Your task to perform on an android device: Open notification settings Image 0: 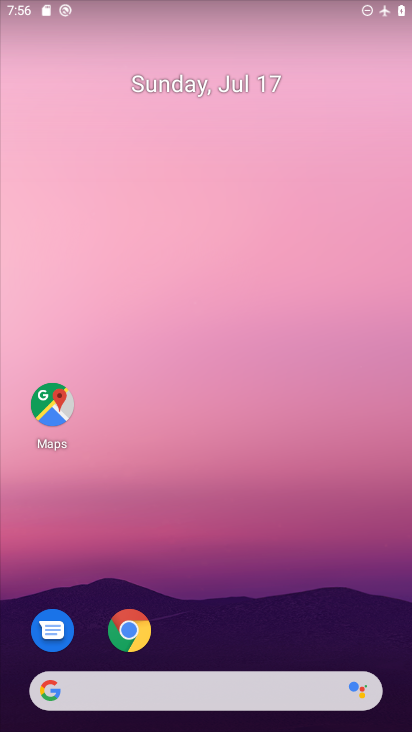
Step 0: drag from (381, 656) to (290, 69)
Your task to perform on an android device: Open notification settings Image 1: 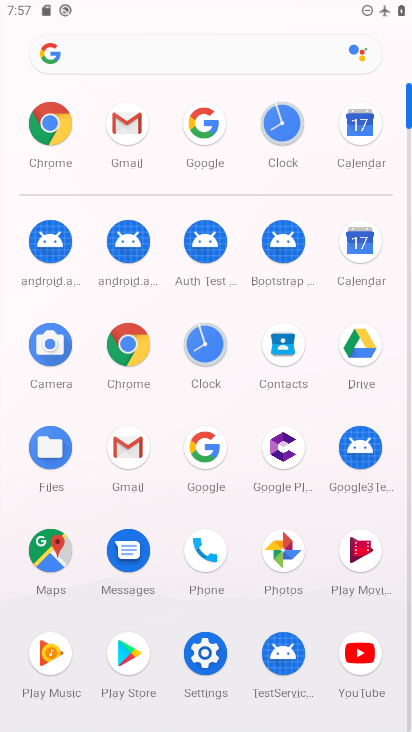
Step 1: click (200, 671)
Your task to perform on an android device: Open notification settings Image 2: 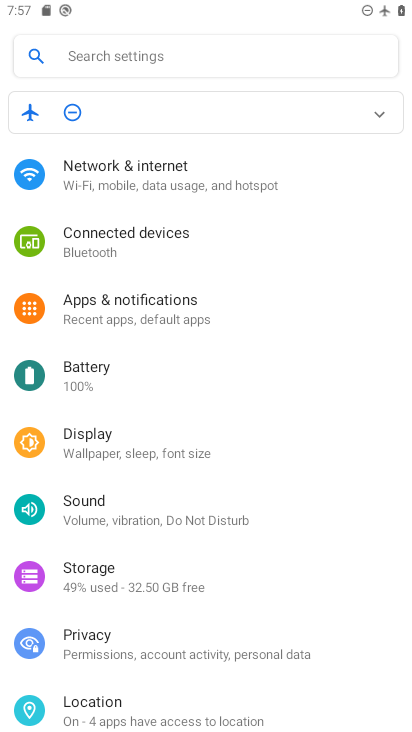
Step 2: click (111, 303)
Your task to perform on an android device: Open notification settings Image 3: 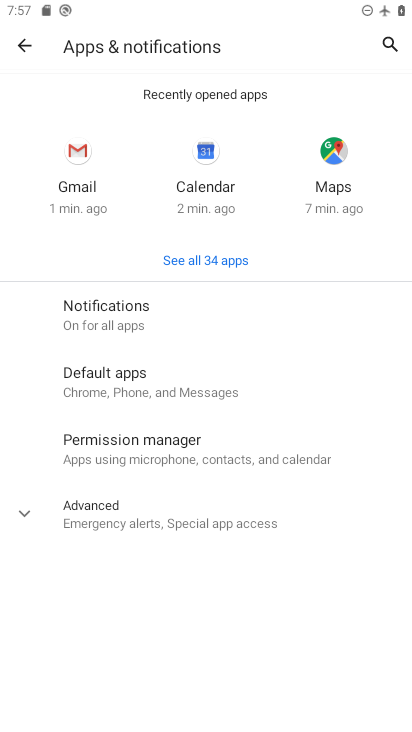
Step 3: click (111, 303)
Your task to perform on an android device: Open notification settings Image 4: 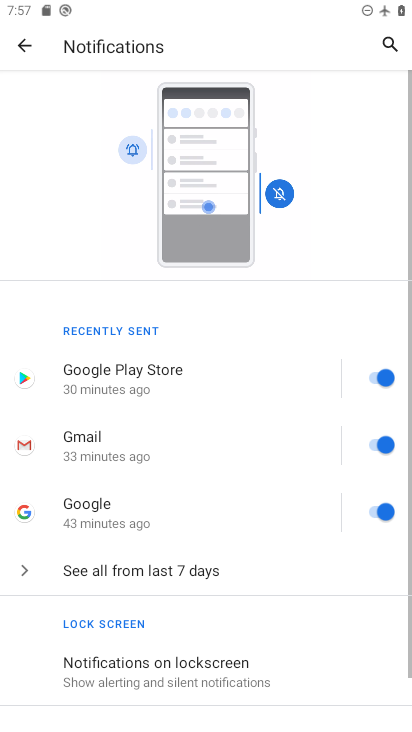
Step 4: task complete